Your task to perform on an android device: change timer sound Image 0: 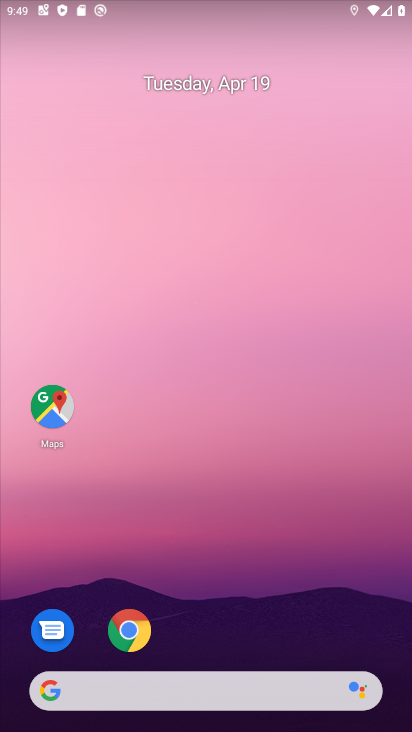
Step 0: drag from (293, 582) to (275, 140)
Your task to perform on an android device: change timer sound Image 1: 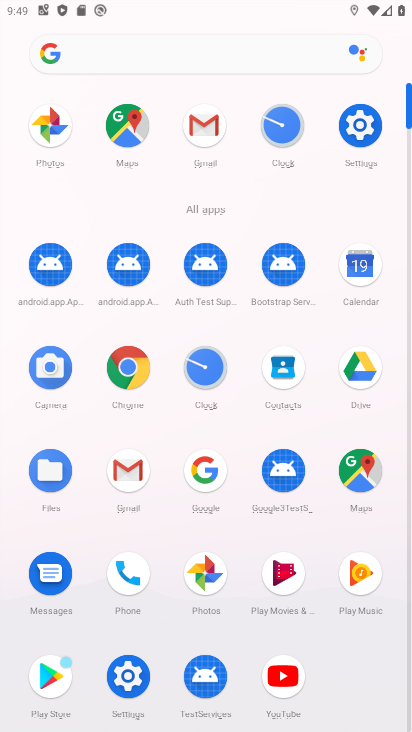
Step 1: click (280, 126)
Your task to perform on an android device: change timer sound Image 2: 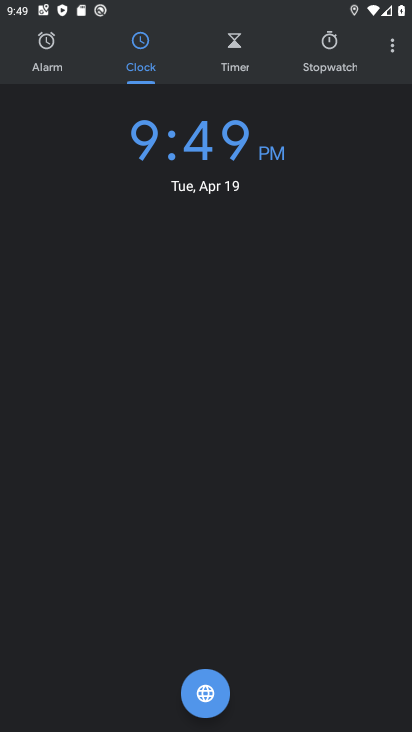
Step 2: click (396, 48)
Your task to perform on an android device: change timer sound Image 3: 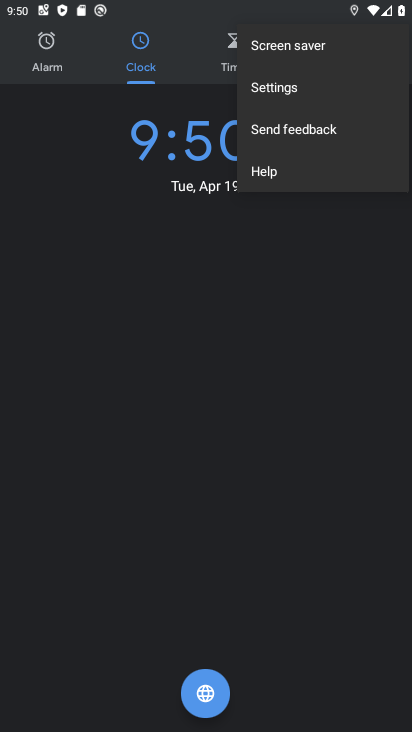
Step 3: click (282, 89)
Your task to perform on an android device: change timer sound Image 4: 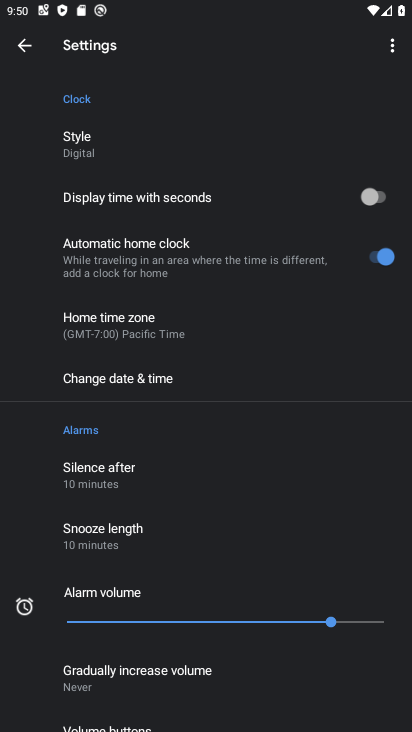
Step 4: drag from (197, 652) to (189, 207)
Your task to perform on an android device: change timer sound Image 5: 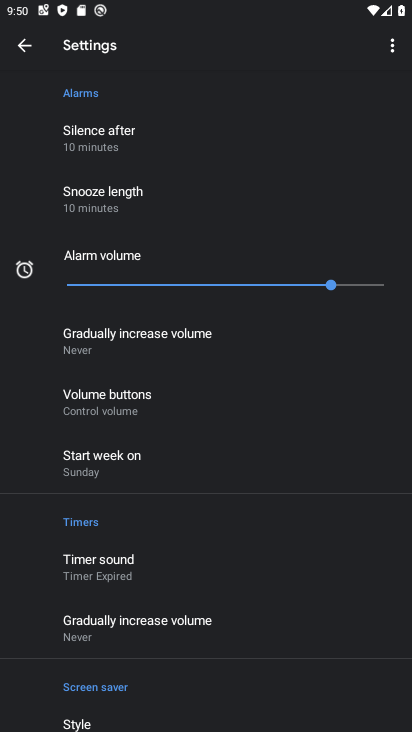
Step 5: click (116, 569)
Your task to perform on an android device: change timer sound Image 6: 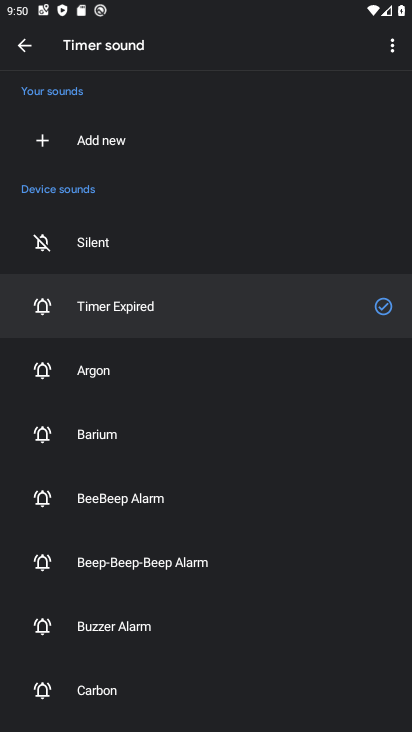
Step 6: click (101, 370)
Your task to perform on an android device: change timer sound Image 7: 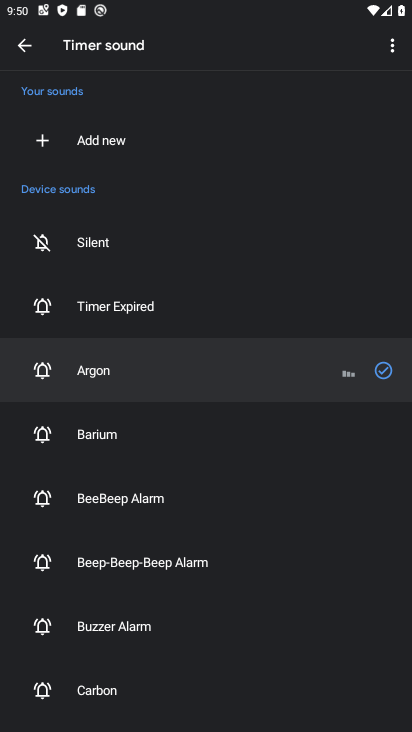
Step 7: task complete